Your task to perform on an android device: Find coffee shops on Maps Image 0: 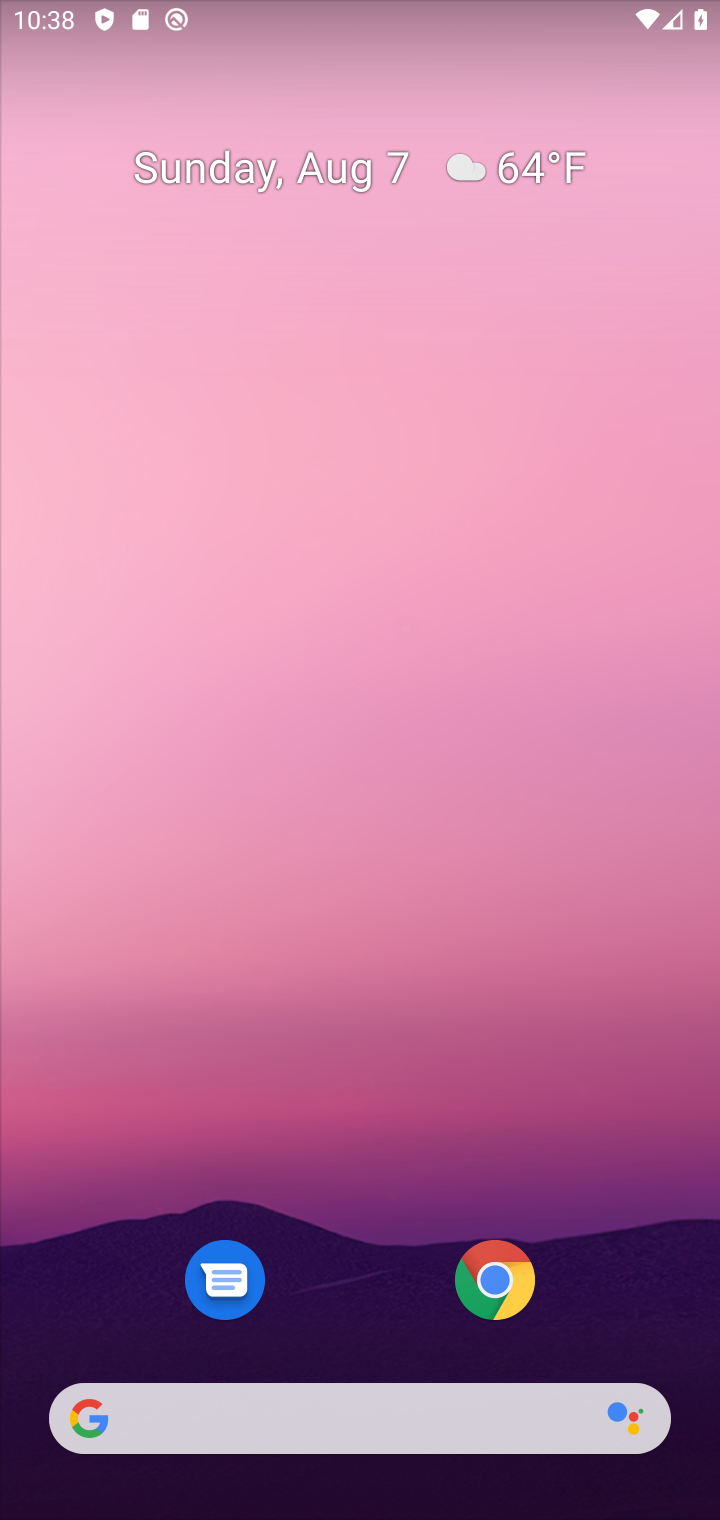
Step 0: drag from (429, 664) to (471, 46)
Your task to perform on an android device: Find coffee shops on Maps Image 1: 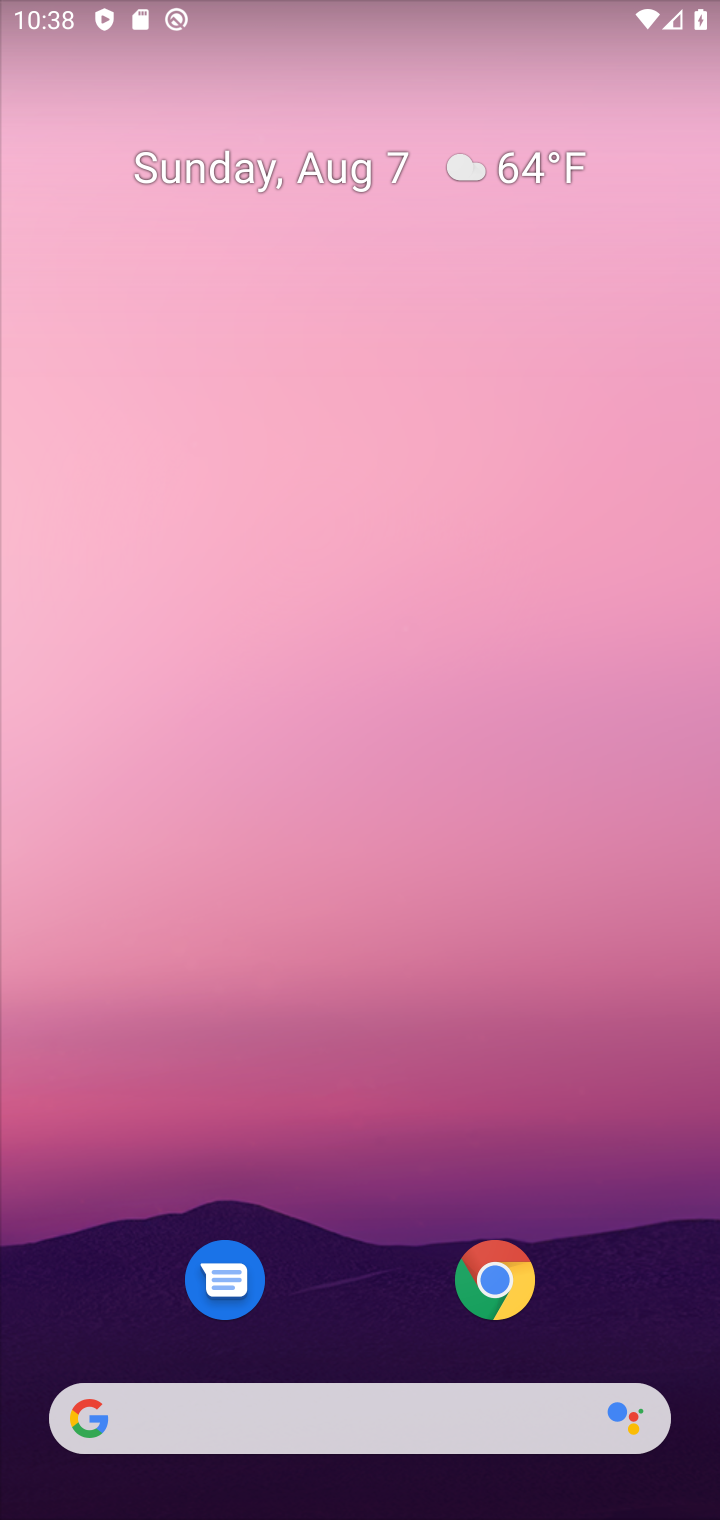
Step 1: drag from (394, 851) to (518, 81)
Your task to perform on an android device: Find coffee shops on Maps Image 2: 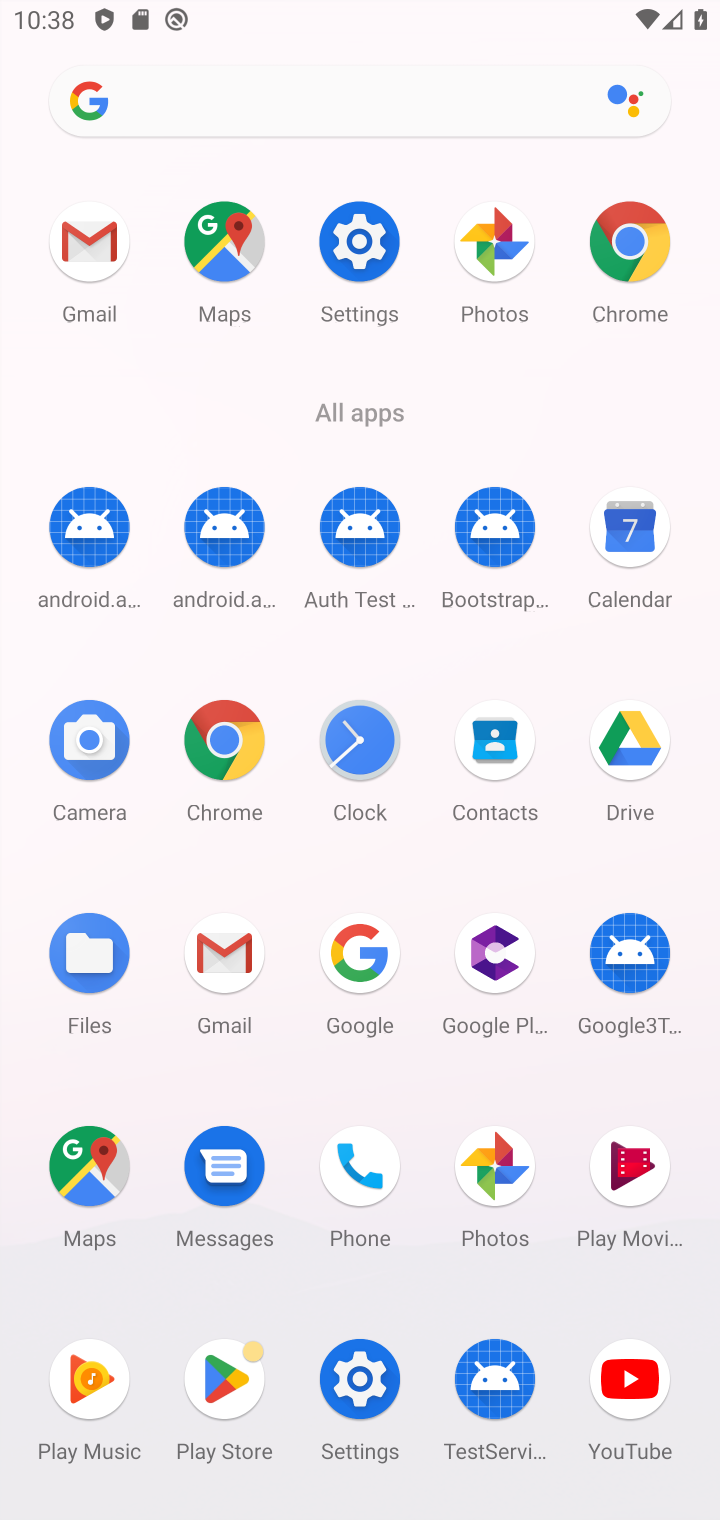
Step 2: click (97, 1159)
Your task to perform on an android device: Find coffee shops on Maps Image 3: 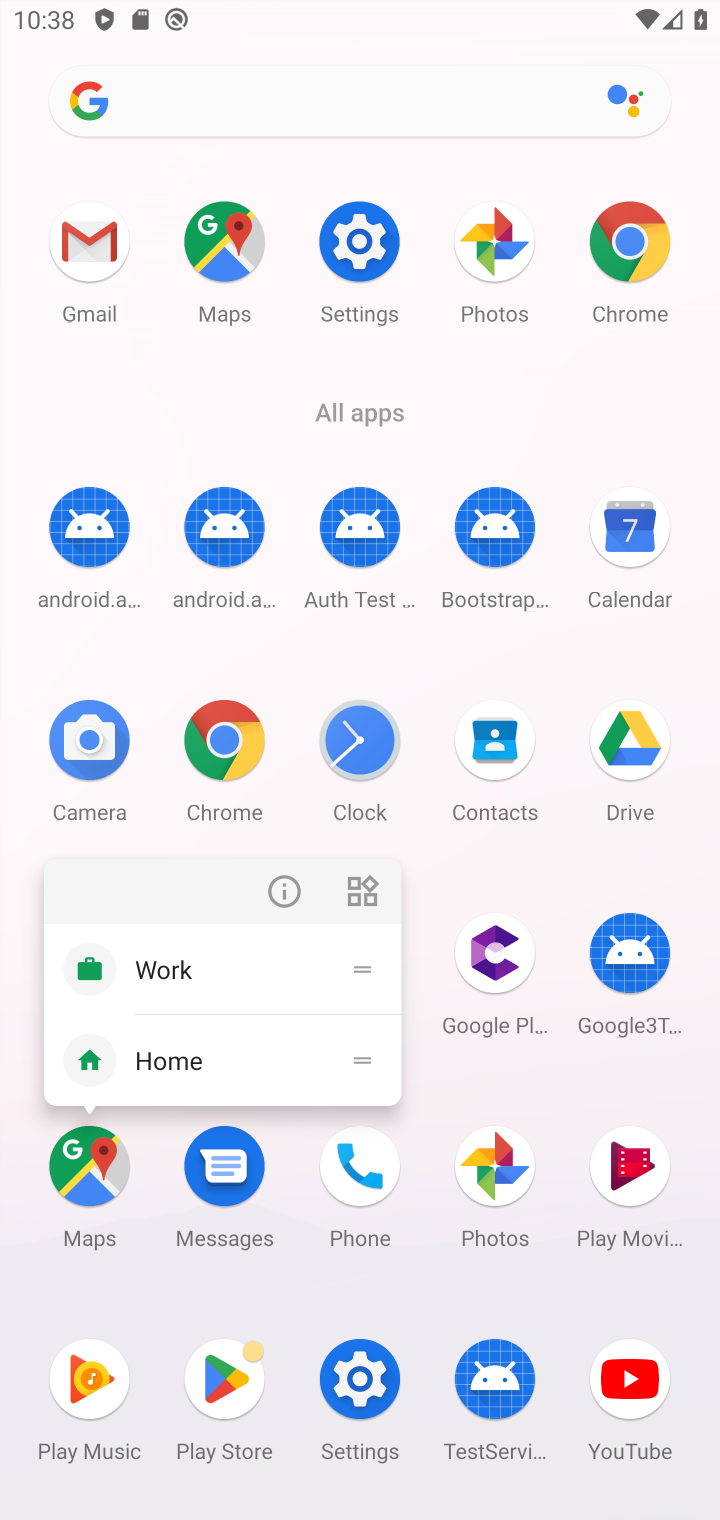
Step 3: click (90, 1175)
Your task to perform on an android device: Find coffee shops on Maps Image 4: 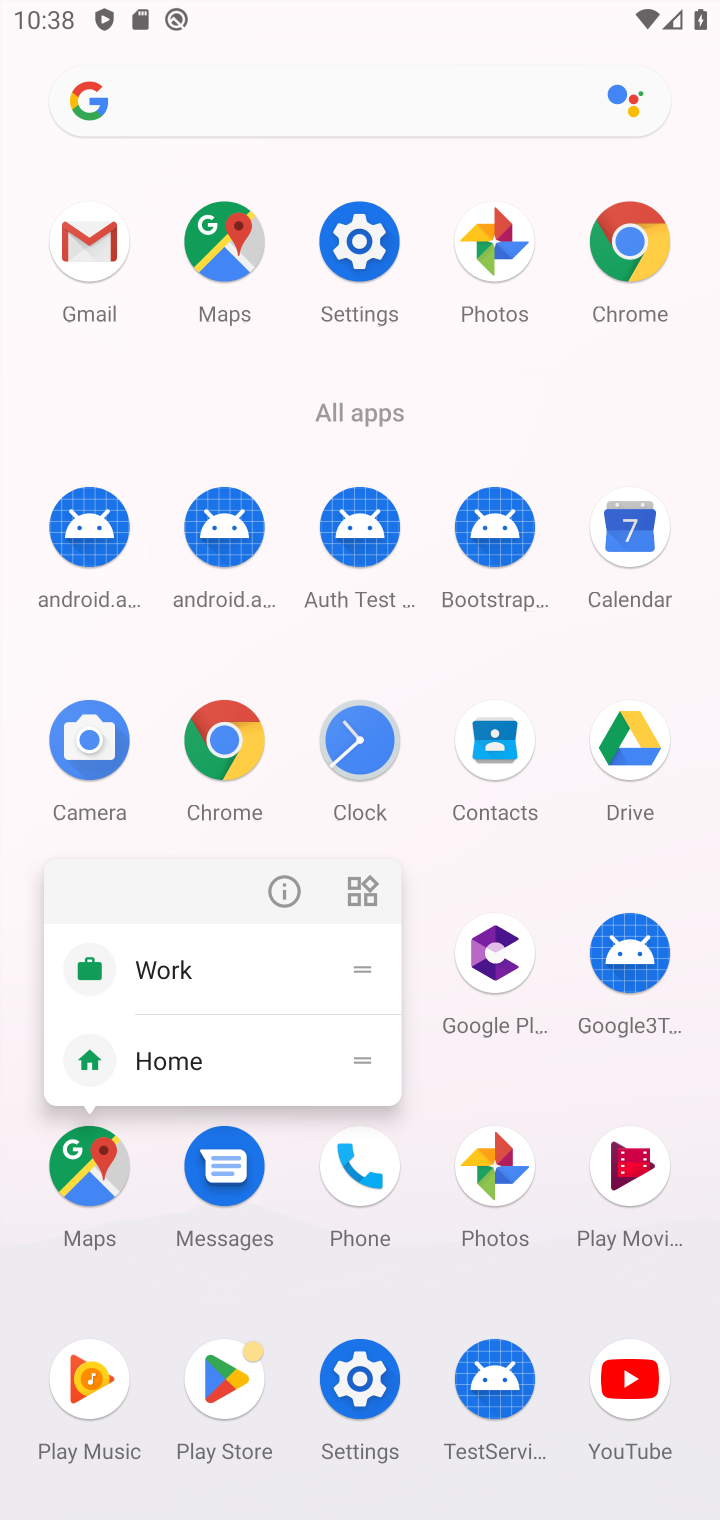
Step 4: click (92, 1173)
Your task to perform on an android device: Find coffee shops on Maps Image 5: 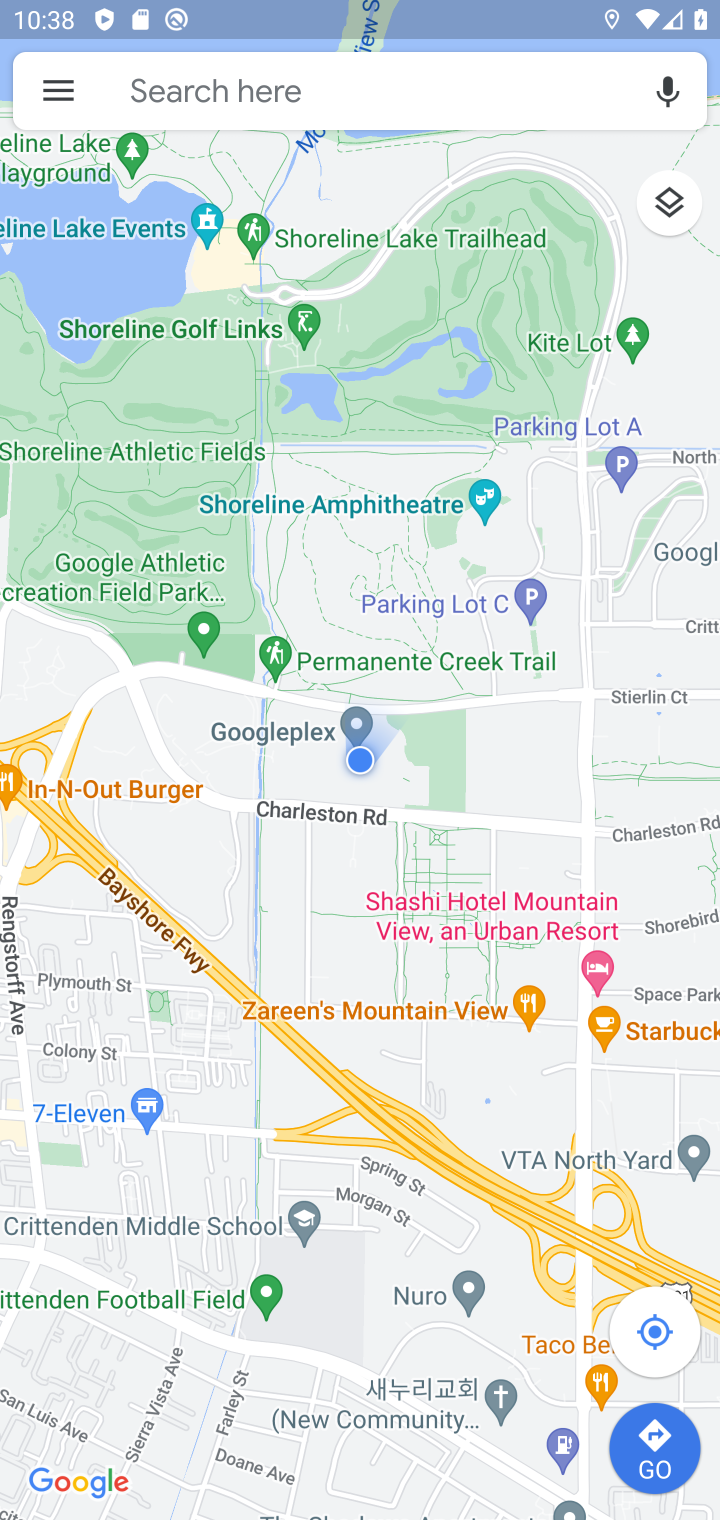
Step 5: click (275, 74)
Your task to perform on an android device: Find coffee shops on Maps Image 6: 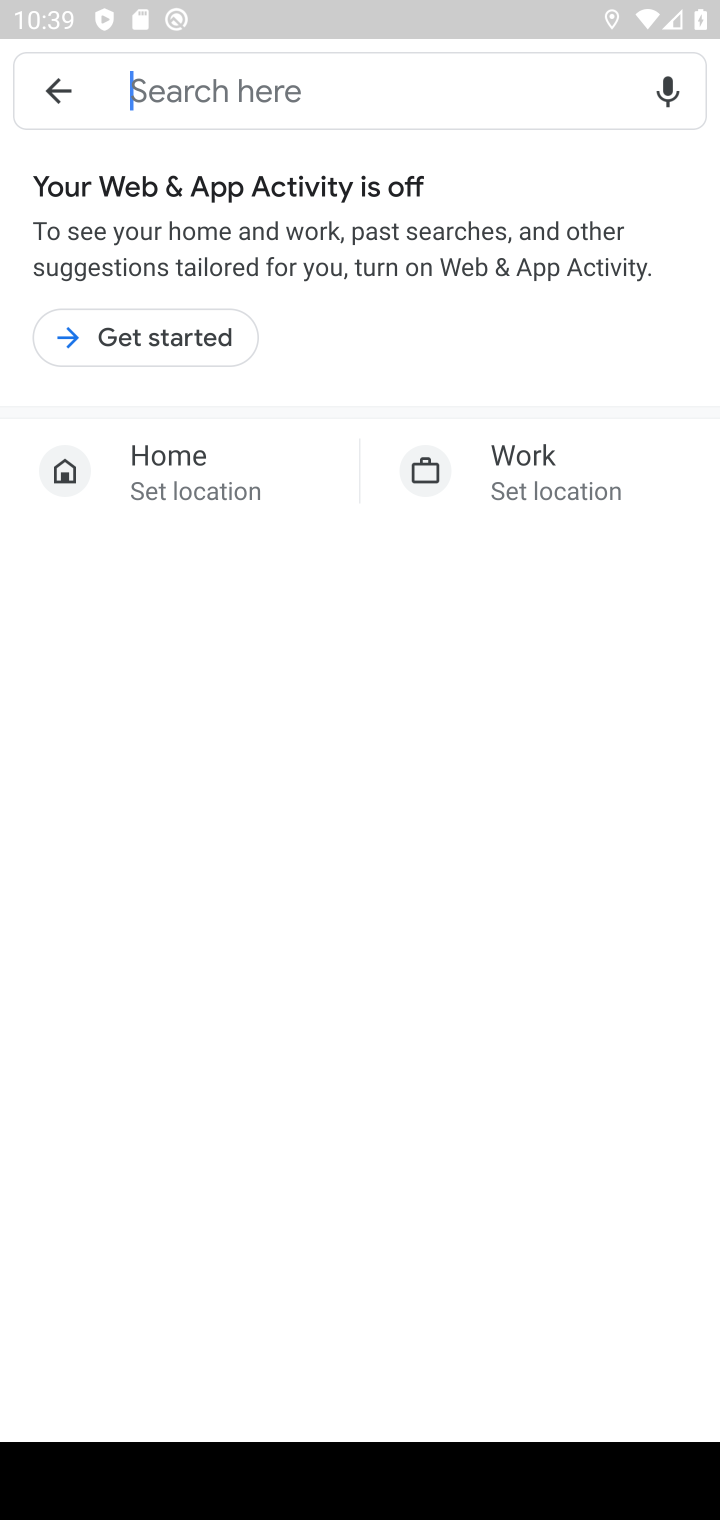
Step 6: click (242, 84)
Your task to perform on an android device: Find coffee shops on Maps Image 7: 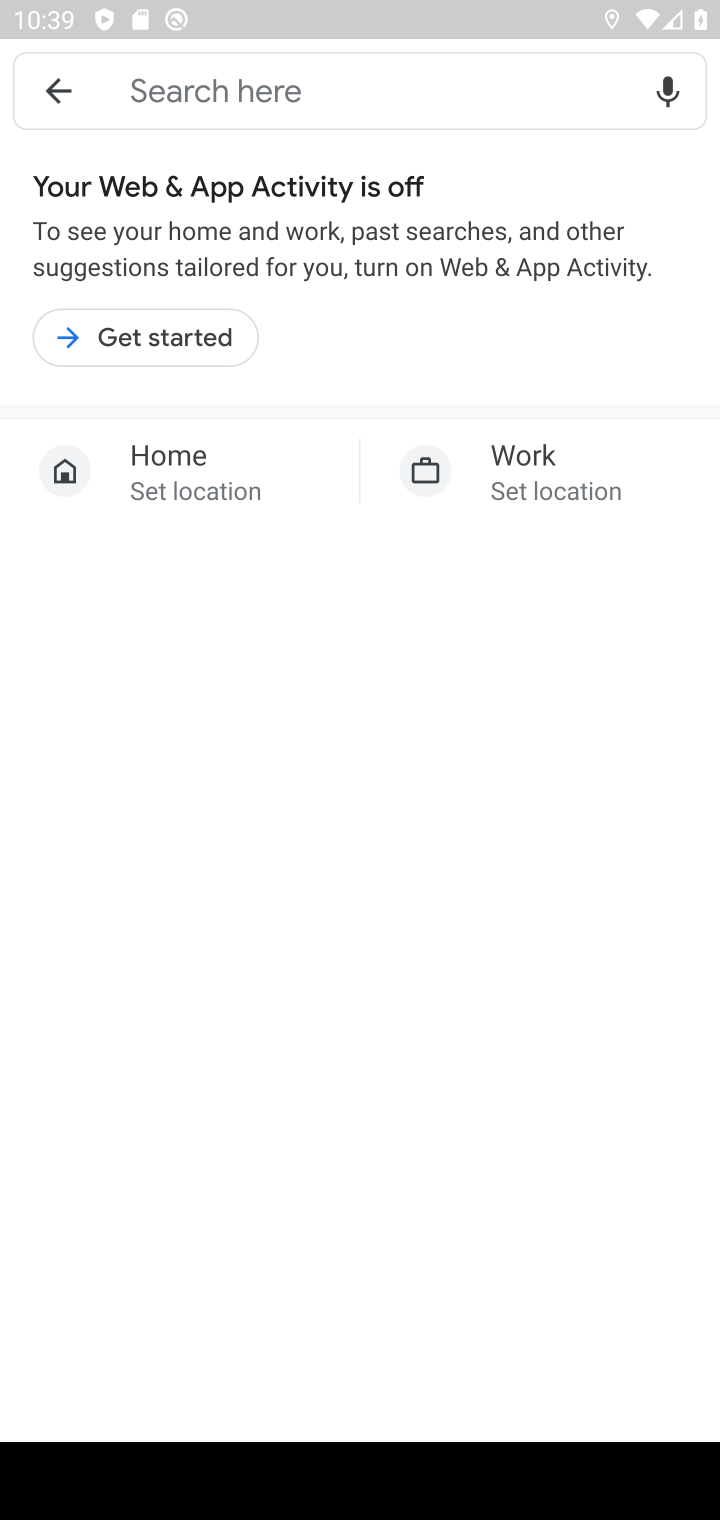
Step 7: type "coffee shops"
Your task to perform on an android device: Find coffee shops on Maps Image 8: 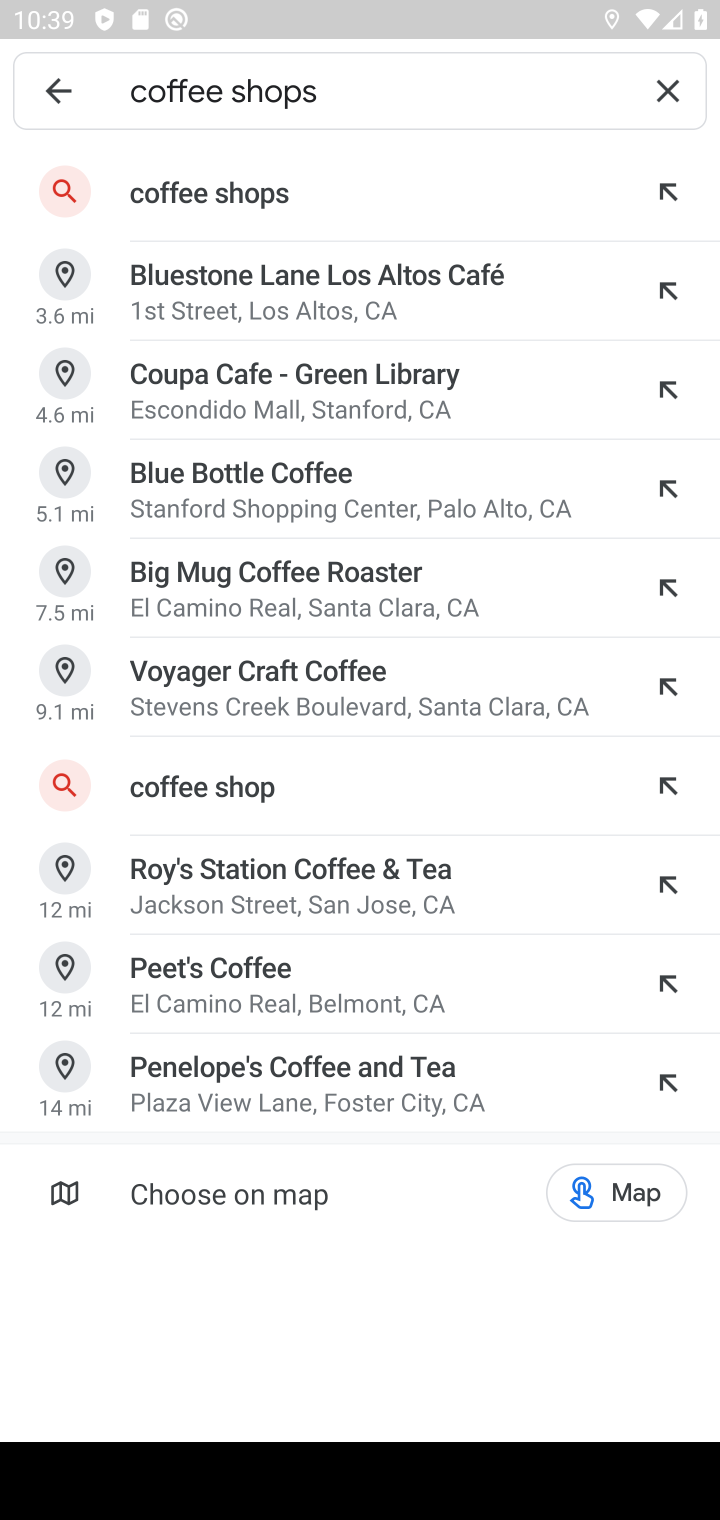
Step 8: click (287, 195)
Your task to perform on an android device: Find coffee shops on Maps Image 9: 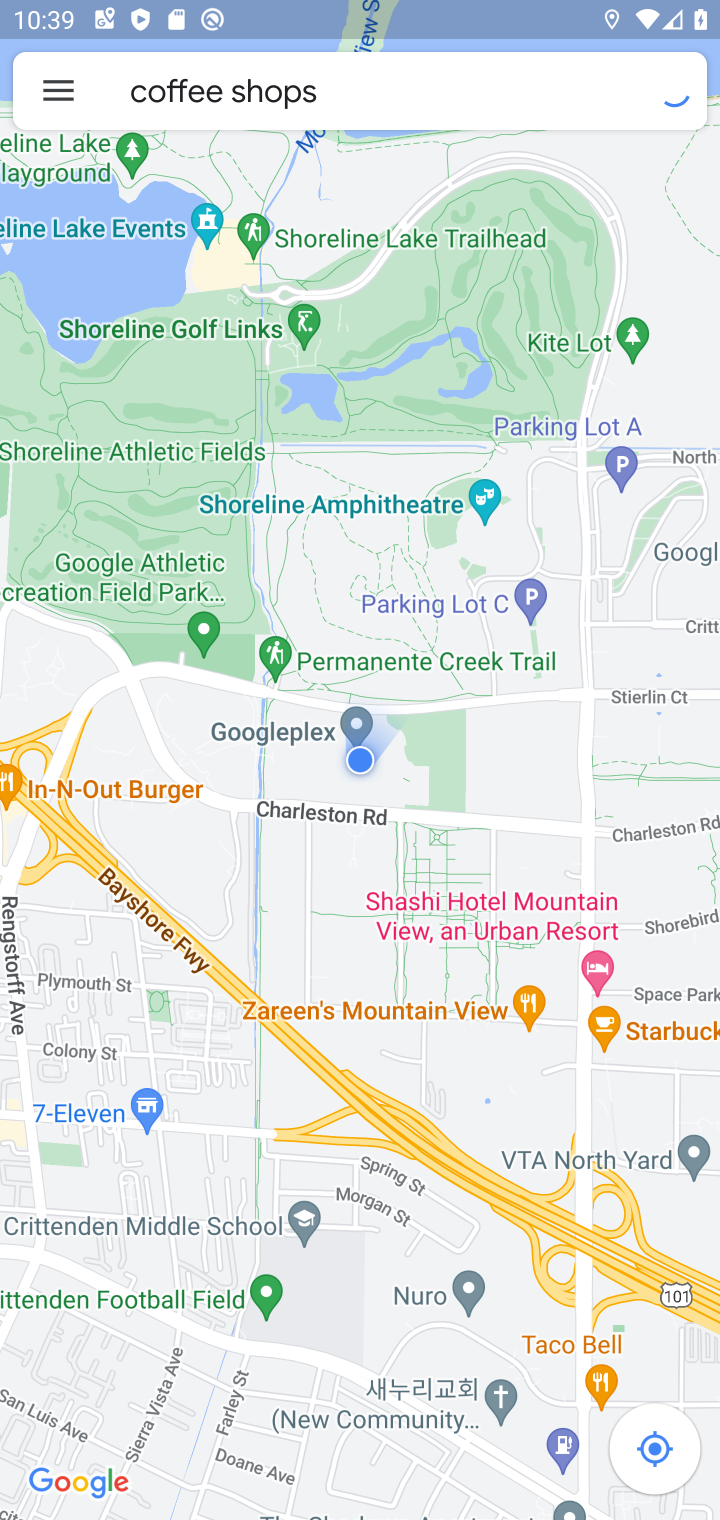
Step 9: task complete